Your task to perform on an android device: Open Google Chrome Image 0: 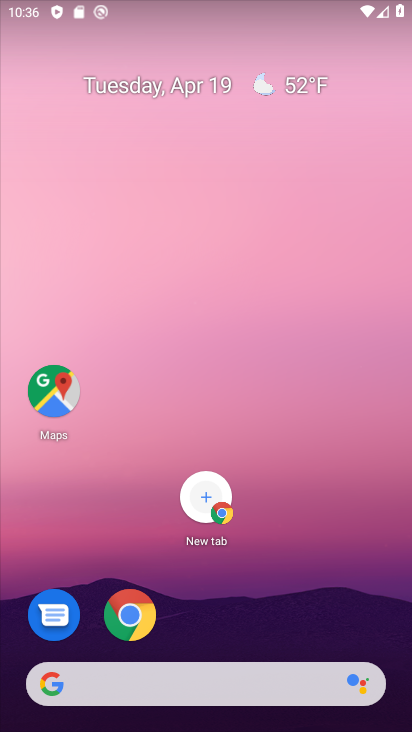
Step 0: click (129, 621)
Your task to perform on an android device: Open Google Chrome Image 1: 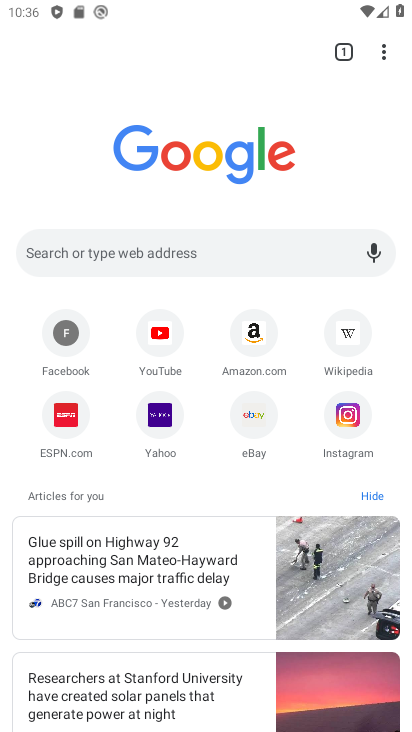
Step 1: task complete